Your task to perform on an android device: Open Chrome and go to settings Image 0: 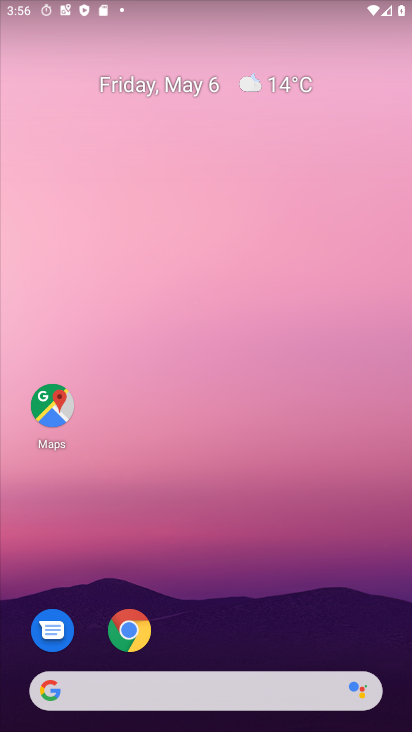
Step 0: click (131, 642)
Your task to perform on an android device: Open Chrome and go to settings Image 1: 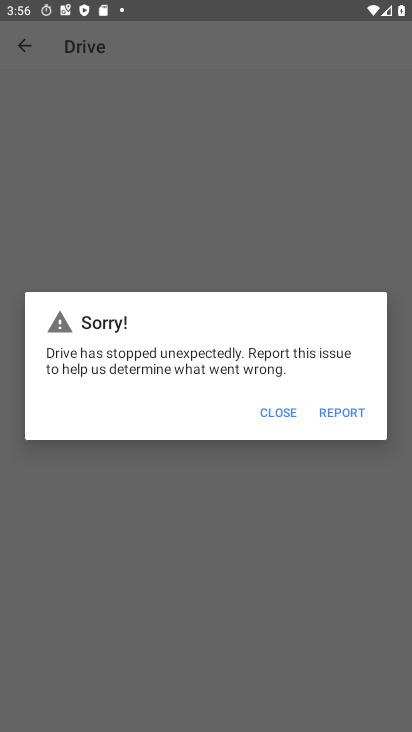
Step 1: click (256, 417)
Your task to perform on an android device: Open Chrome and go to settings Image 2: 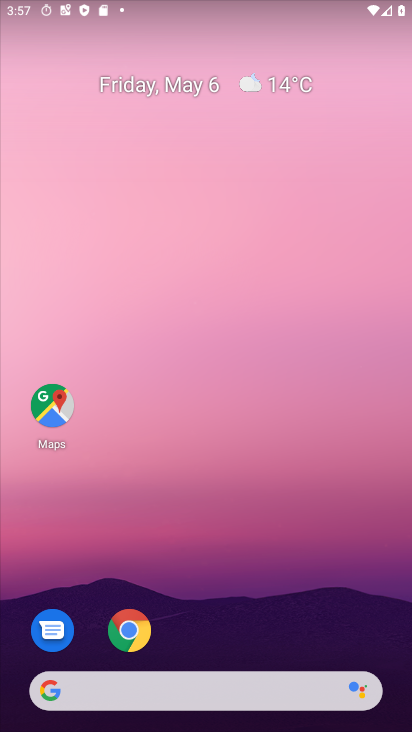
Step 2: click (126, 629)
Your task to perform on an android device: Open Chrome and go to settings Image 3: 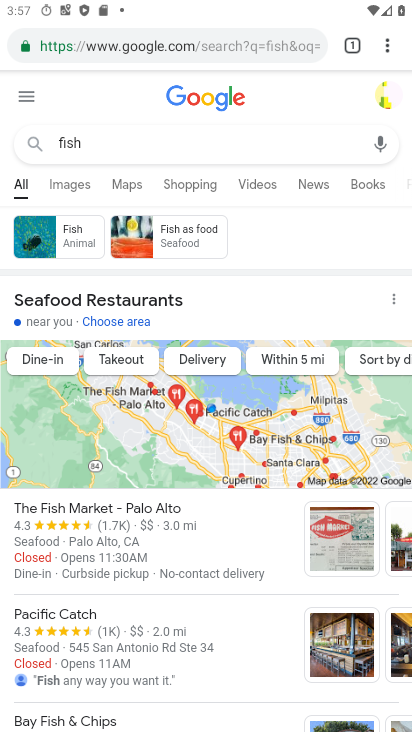
Step 3: click (379, 40)
Your task to perform on an android device: Open Chrome and go to settings Image 4: 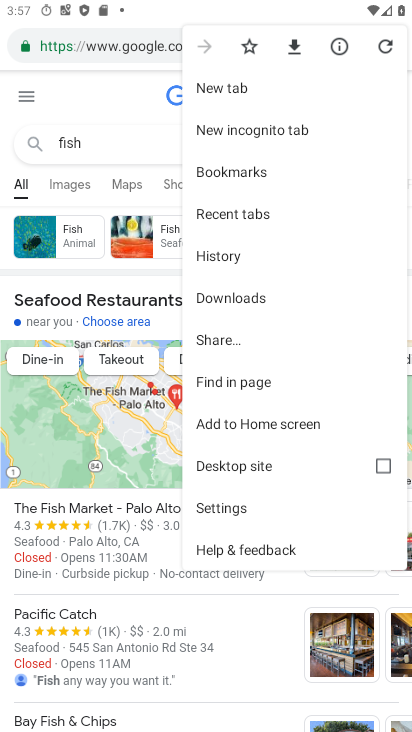
Step 4: click (215, 511)
Your task to perform on an android device: Open Chrome and go to settings Image 5: 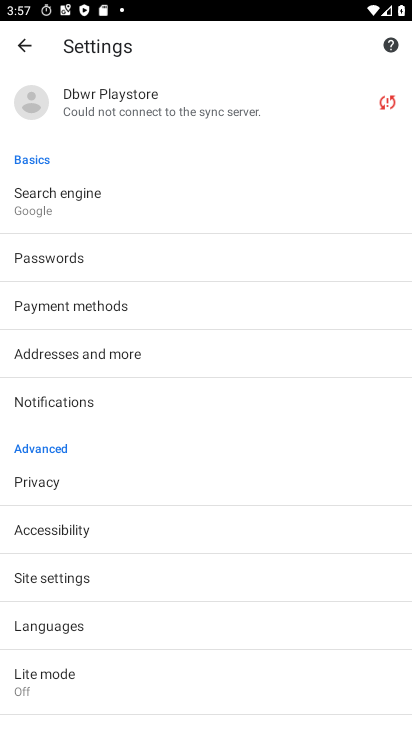
Step 5: task complete